Your task to perform on an android device: open chrome privacy settings Image 0: 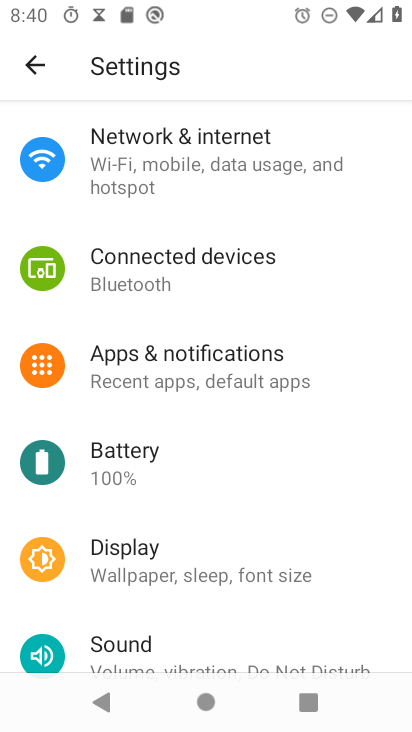
Step 0: press home button
Your task to perform on an android device: open chrome privacy settings Image 1: 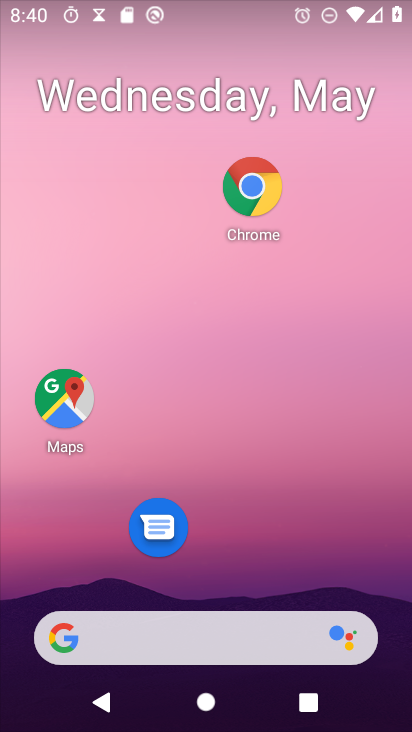
Step 1: click (253, 187)
Your task to perform on an android device: open chrome privacy settings Image 2: 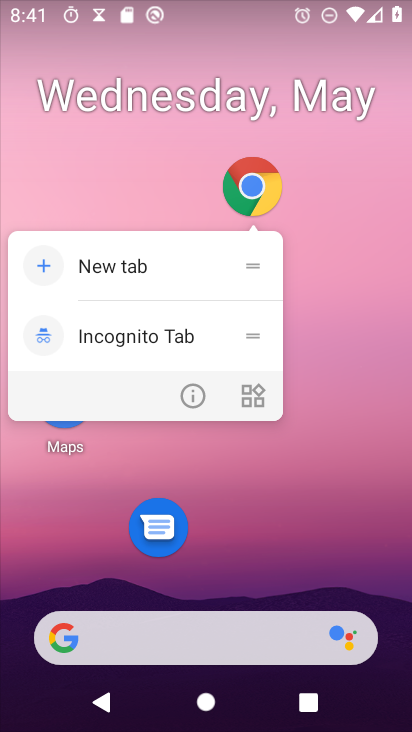
Step 2: drag from (302, 568) to (335, 97)
Your task to perform on an android device: open chrome privacy settings Image 3: 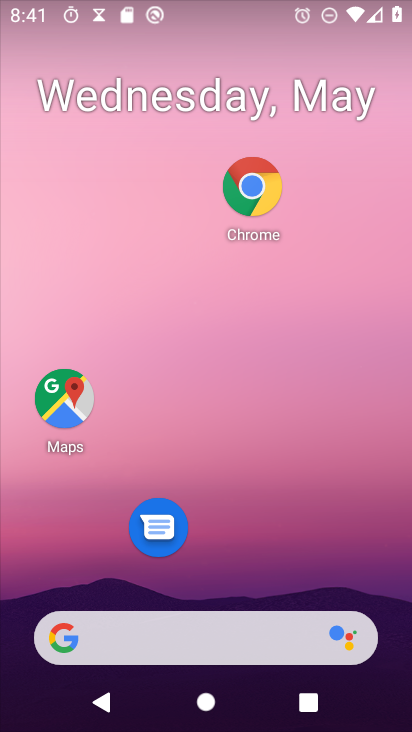
Step 3: drag from (288, 445) to (295, 91)
Your task to perform on an android device: open chrome privacy settings Image 4: 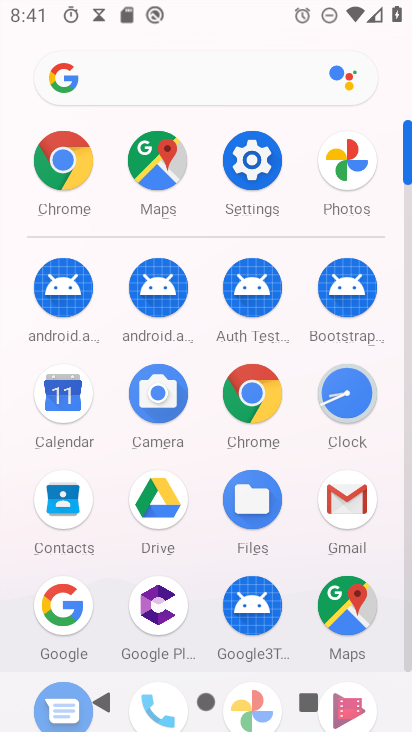
Step 4: click (252, 391)
Your task to perform on an android device: open chrome privacy settings Image 5: 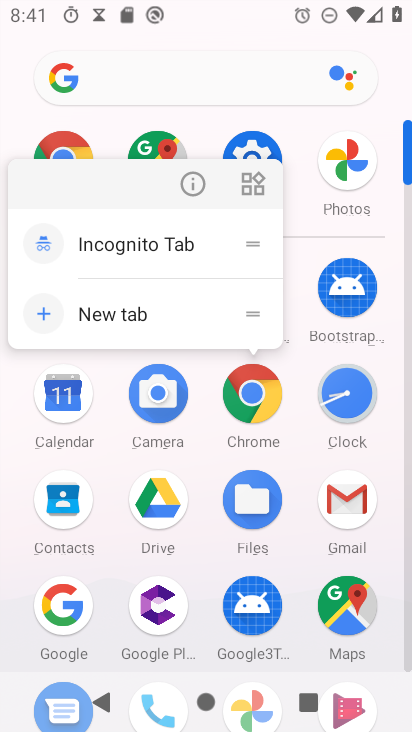
Step 5: click (251, 381)
Your task to perform on an android device: open chrome privacy settings Image 6: 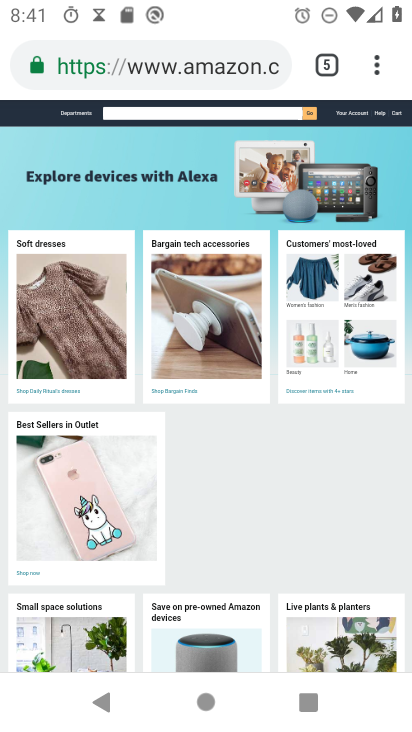
Step 6: drag from (377, 63) to (183, 576)
Your task to perform on an android device: open chrome privacy settings Image 7: 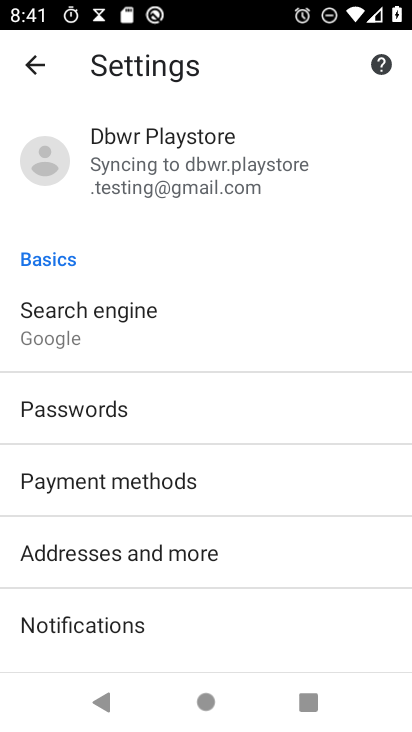
Step 7: drag from (317, 644) to (334, 153)
Your task to perform on an android device: open chrome privacy settings Image 8: 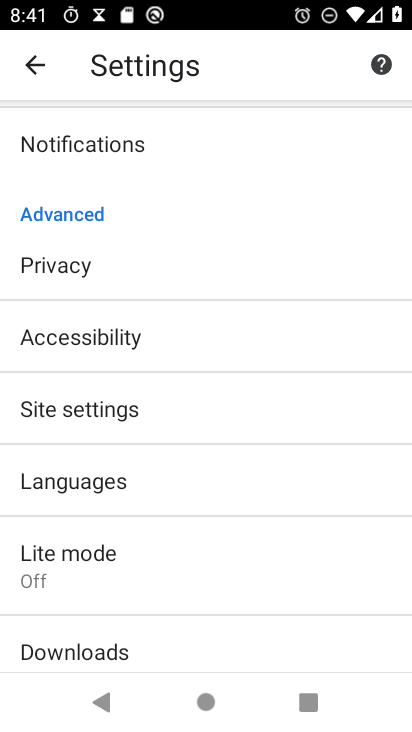
Step 8: click (70, 261)
Your task to perform on an android device: open chrome privacy settings Image 9: 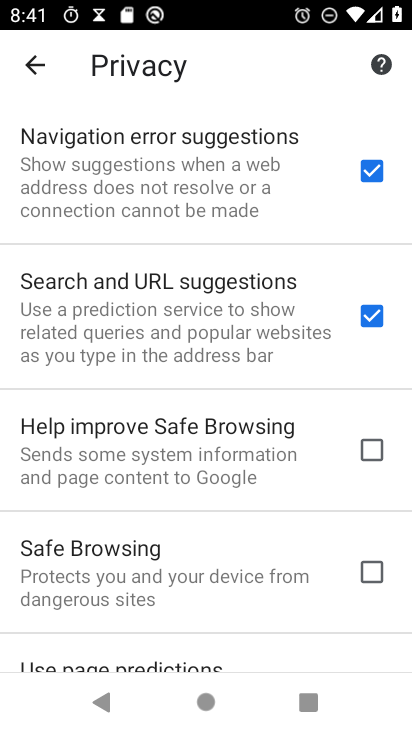
Step 9: task complete